Your task to perform on an android device: turn off notifications settings in the gmail app Image 0: 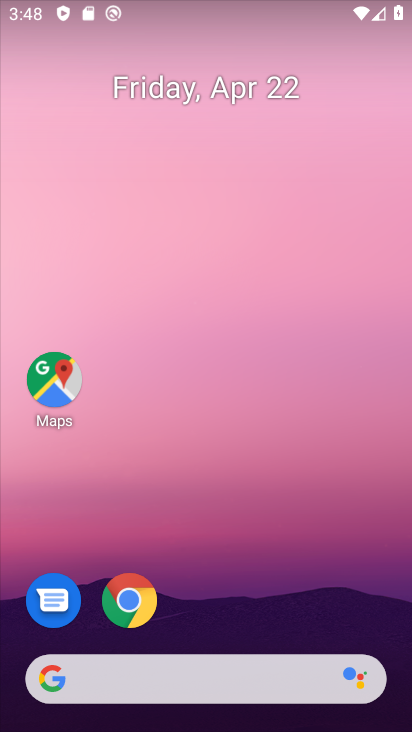
Step 0: drag from (266, 589) to (197, 138)
Your task to perform on an android device: turn off notifications settings in the gmail app Image 1: 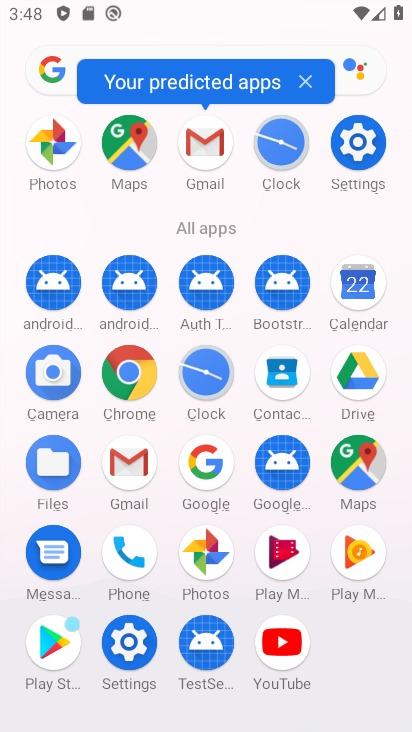
Step 1: click (208, 170)
Your task to perform on an android device: turn off notifications settings in the gmail app Image 2: 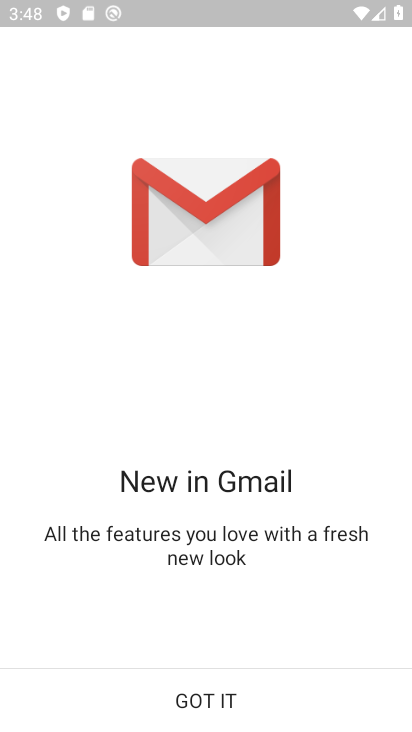
Step 2: click (232, 702)
Your task to perform on an android device: turn off notifications settings in the gmail app Image 3: 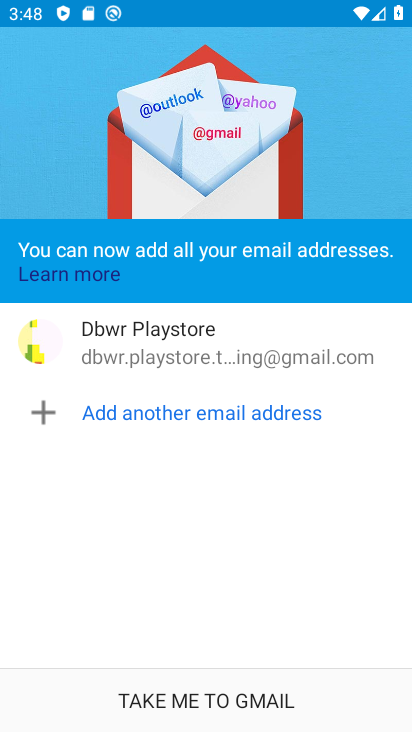
Step 3: click (232, 702)
Your task to perform on an android device: turn off notifications settings in the gmail app Image 4: 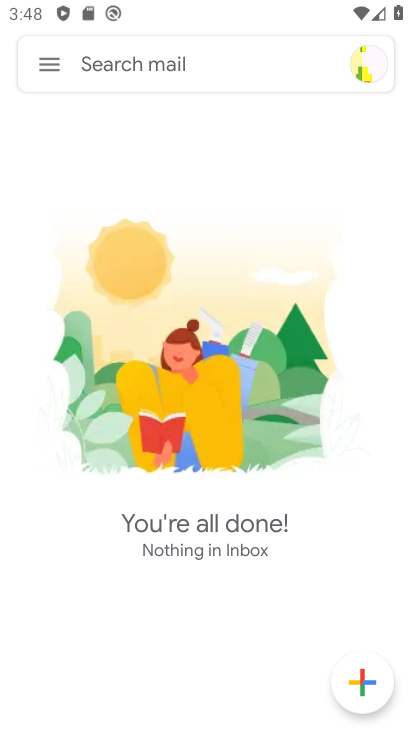
Step 4: click (62, 84)
Your task to perform on an android device: turn off notifications settings in the gmail app Image 5: 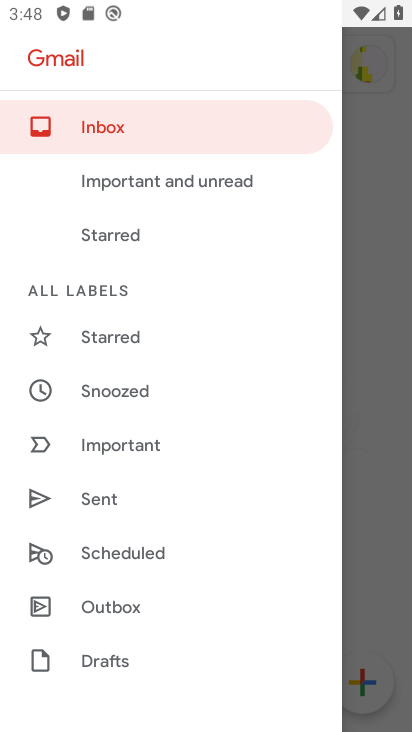
Step 5: drag from (248, 644) to (210, 189)
Your task to perform on an android device: turn off notifications settings in the gmail app Image 6: 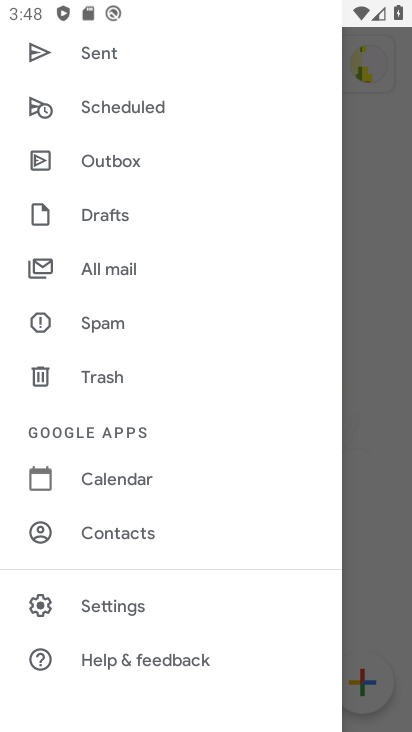
Step 6: click (208, 601)
Your task to perform on an android device: turn off notifications settings in the gmail app Image 7: 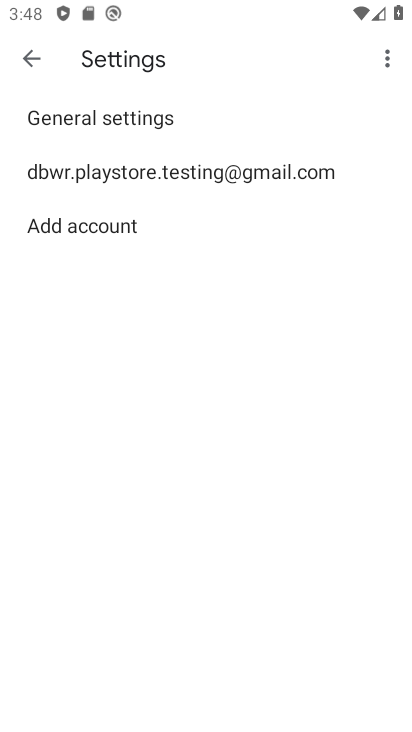
Step 7: click (225, 182)
Your task to perform on an android device: turn off notifications settings in the gmail app Image 8: 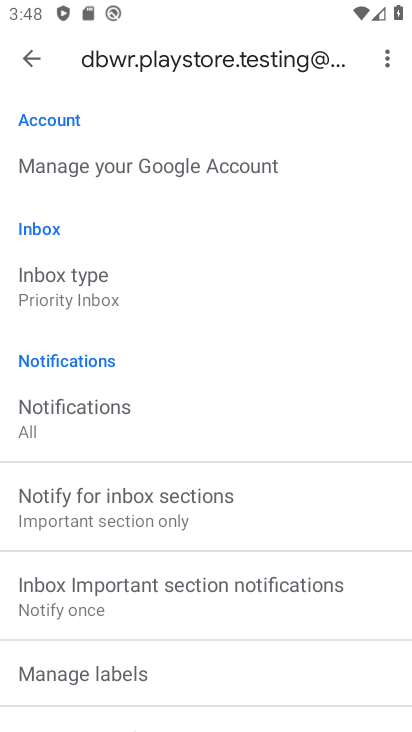
Step 8: drag from (282, 586) to (298, 184)
Your task to perform on an android device: turn off notifications settings in the gmail app Image 9: 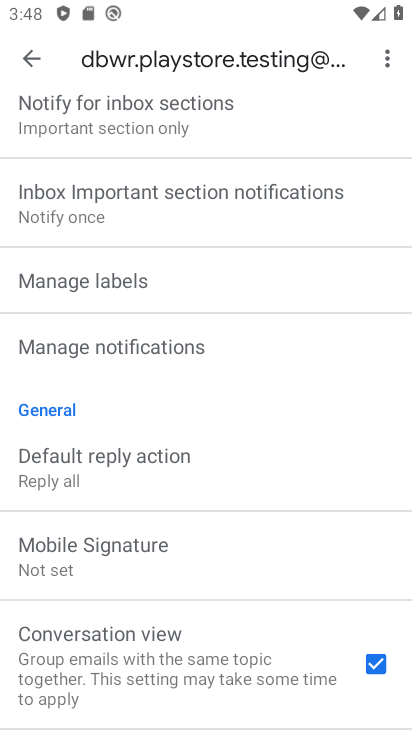
Step 9: click (236, 351)
Your task to perform on an android device: turn off notifications settings in the gmail app Image 10: 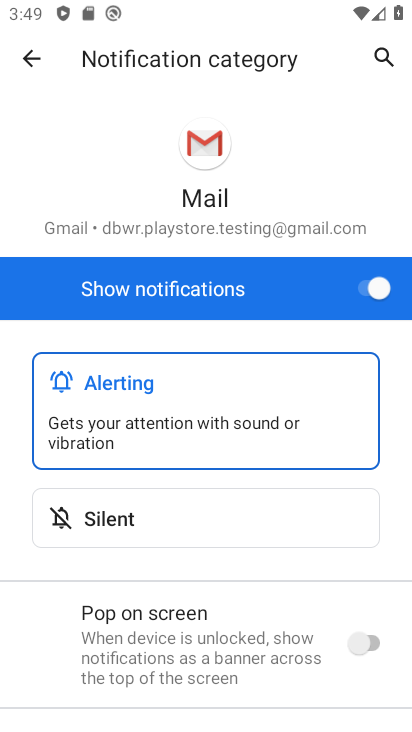
Step 10: task complete